Your task to perform on an android device: Show me the alarms in the clock app Image 0: 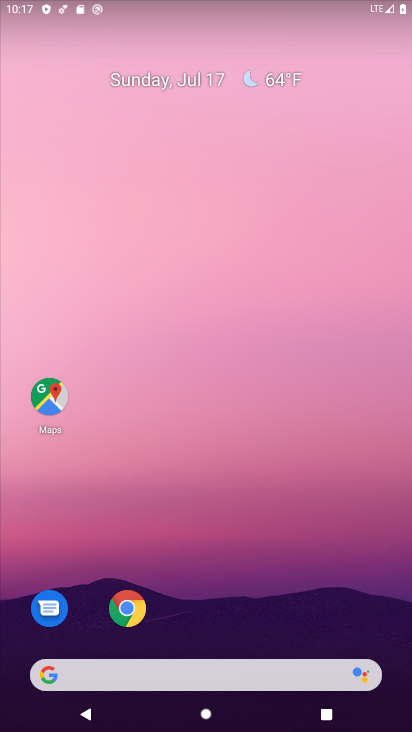
Step 0: drag from (340, 620) to (173, 8)
Your task to perform on an android device: Show me the alarms in the clock app Image 1: 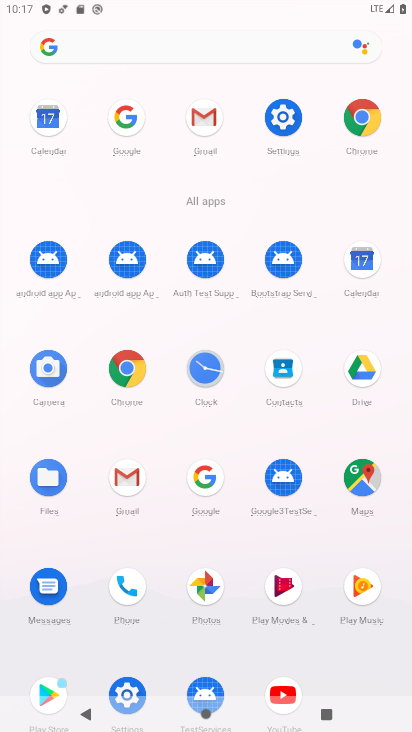
Step 1: click (200, 374)
Your task to perform on an android device: Show me the alarms in the clock app Image 2: 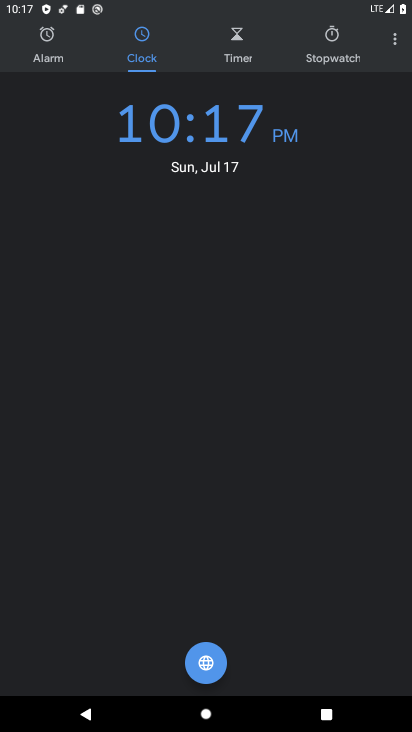
Step 2: click (38, 44)
Your task to perform on an android device: Show me the alarms in the clock app Image 3: 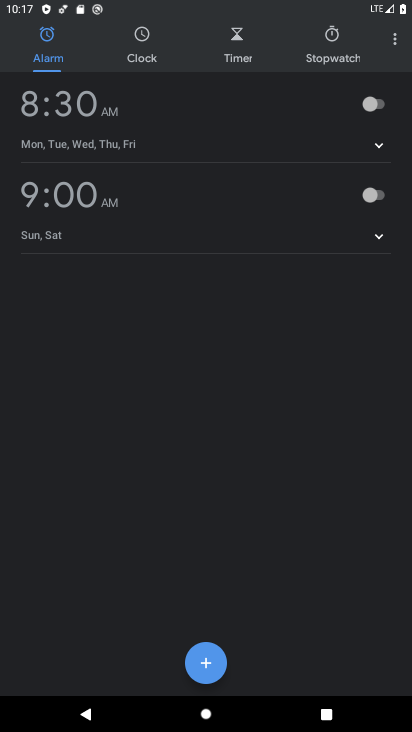
Step 3: task complete